Your task to perform on an android device: Go to display settings Image 0: 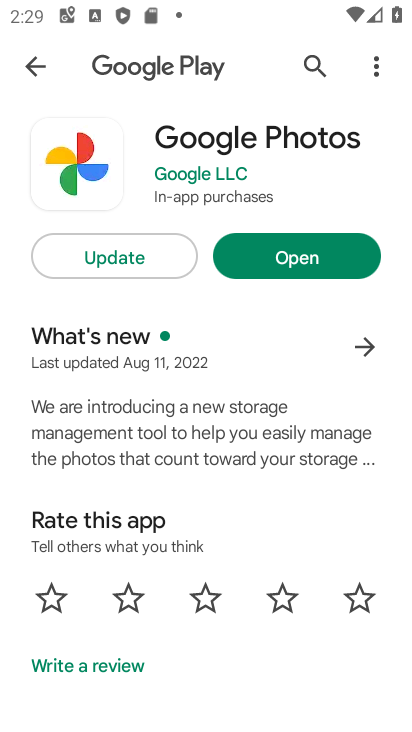
Step 0: press home button
Your task to perform on an android device: Go to display settings Image 1: 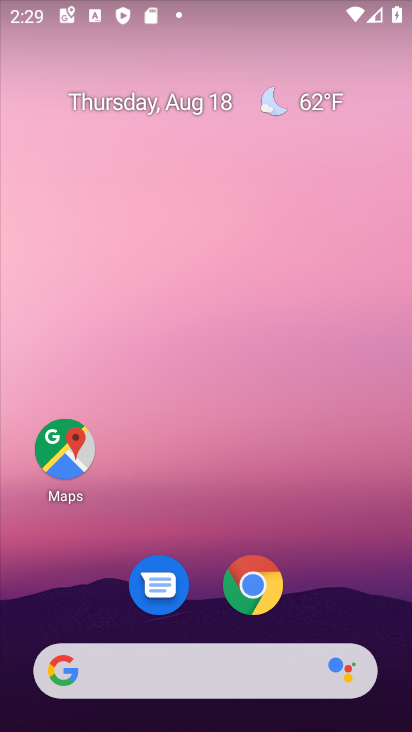
Step 1: drag from (213, 519) to (233, 6)
Your task to perform on an android device: Go to display settings Image 2: 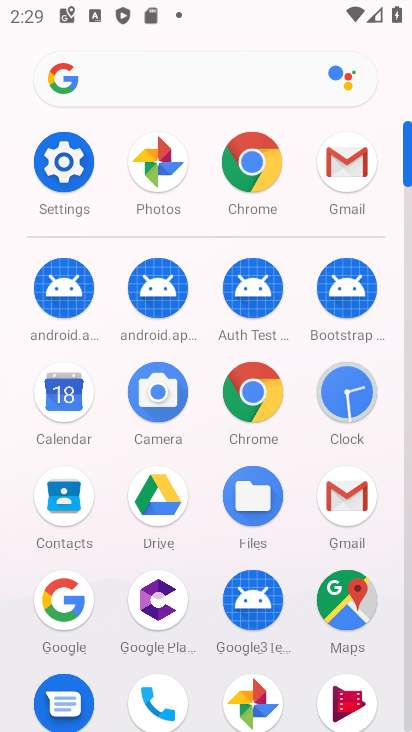
Step 2: click (62, 159)
Your task to perform on an android device: Go to display settings Image 3: 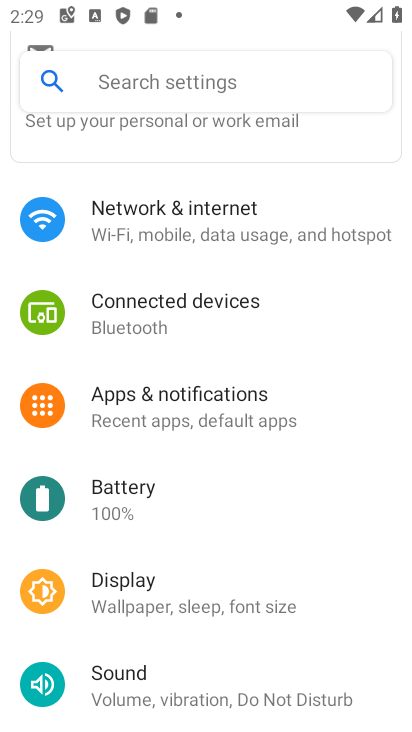
Step 3: click (172, 586)
Your task to perform on an android device: Go to display settings Image 4: 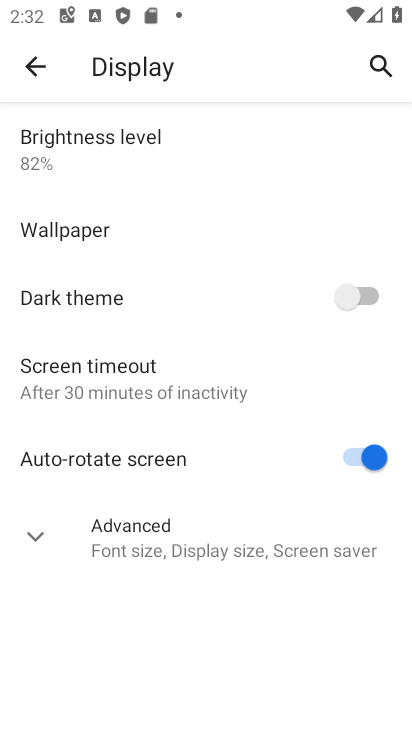
Step 4: task complete